Your task to perform on an android device: Open Google Chrome and click the shortcut for Amazon.com Image 0: 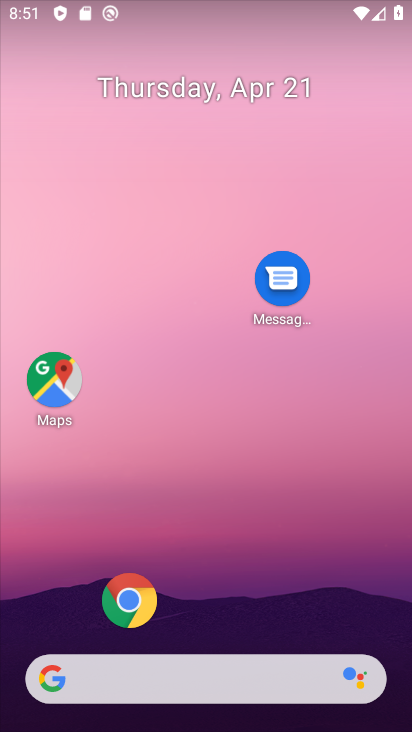
Step 0: click (128, 600)
Your task to perform on an android device: Open Google Chrome and click the shortcut for Amazon.com Image 1: 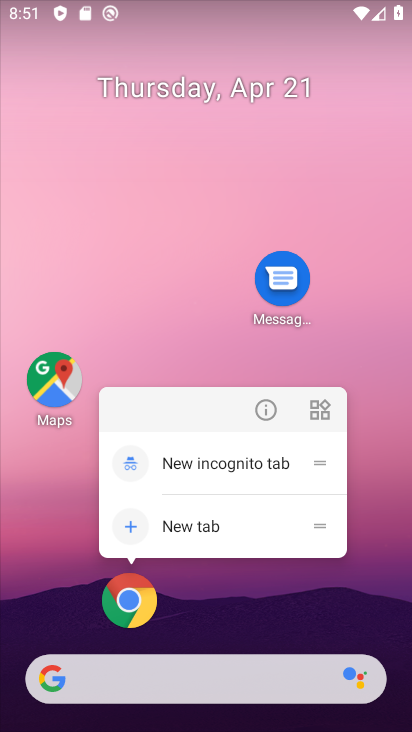
Step 1: click (267, 419)
Your task to perform on an android device: Open Google Chrome and click the shortcut for Amazon.com Image 2: 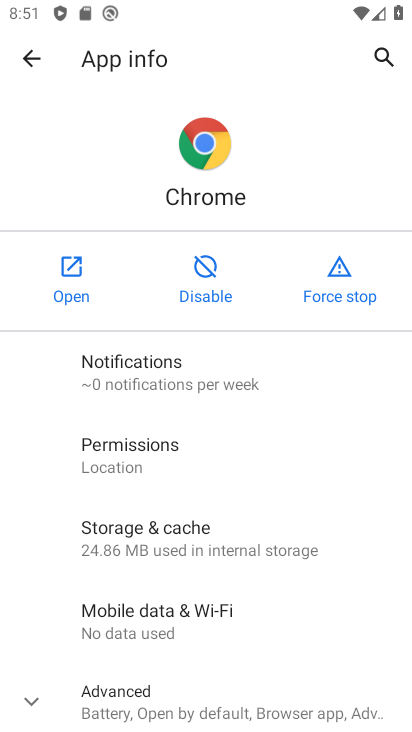
Step 2: click (68, 259)
Your task to perform on an android device: Open Google Chrome and click the shortcut for Amazon.com Image 3: 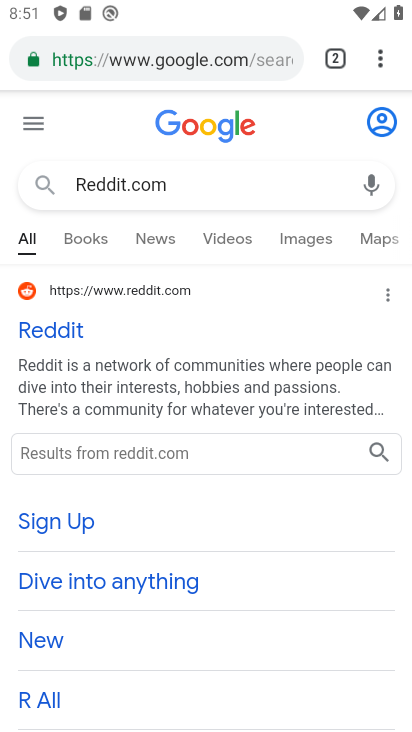
Step 3: click (332, 54)
Your task to perform on an android device: Open Google Chrome and click the shortcut for Amazon.com Image 4: 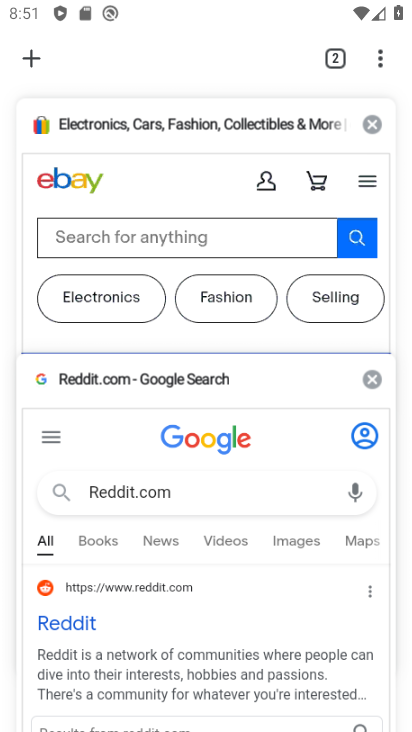
Step 4: click (376, 123)
Your task to perform on an android device: Open Google Chrome and click the shortcut for Amazon.com Image 5: 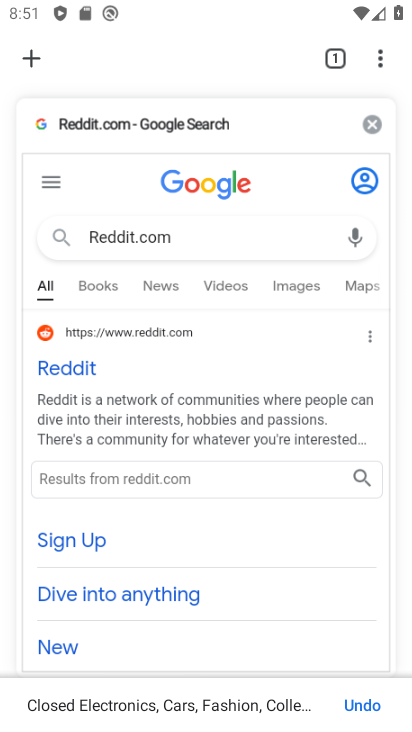
Step 5: click (369, 121)
Your task to perform on an android device: Open Google Chrome and click the shortcut for Amazon.com Image 6: 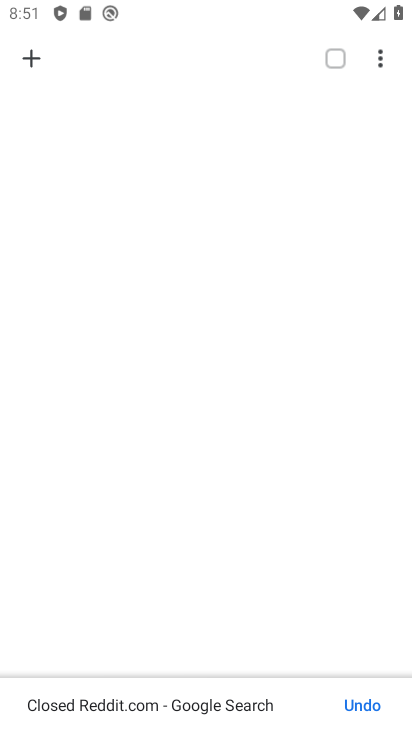
Step 6: click (31, 62)
Your task to perform on an android device: Open Google Chrome and click the shortcut for Amazon.com Image 7: 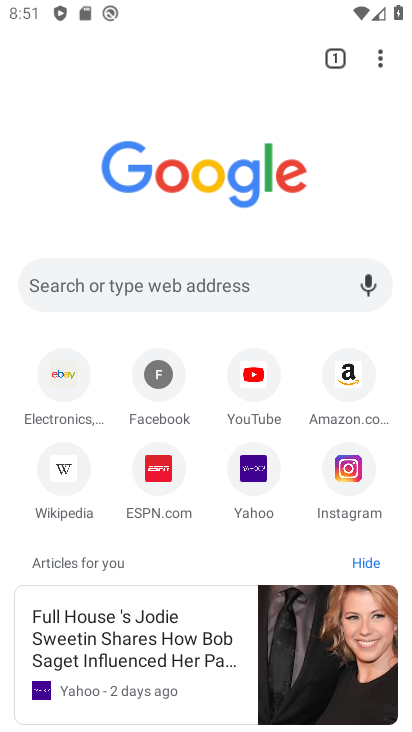
Step 7: click (329, 386)
Your task to perform on an android device: Open Google Chrome and click the shortcut for Amazon.com Image 8: 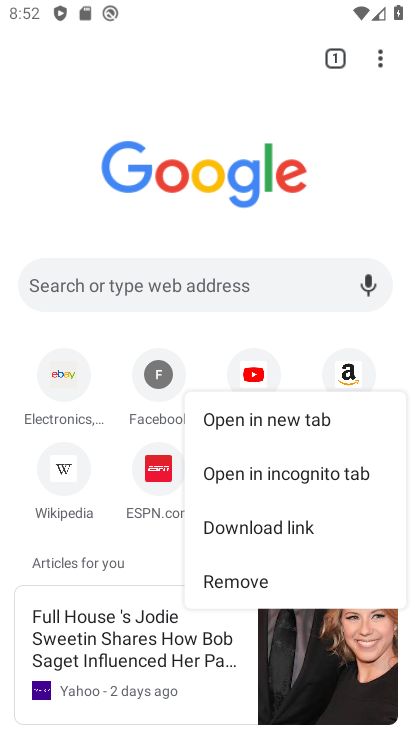
Step 8: click (334, 379)
Your task to perform on an android device: Open Google Chrome and click the shortcut for Amazon.com Image 9: 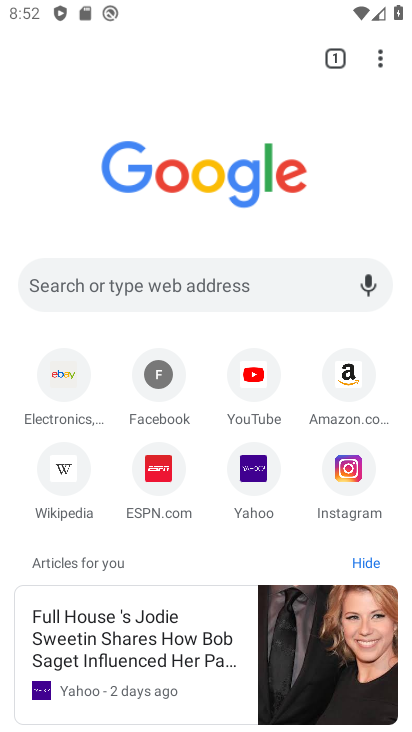
Step 9: click (345, 374)
Your task to perform on an android device: Open Google Chrome and click the shortcut for Amazon.com Image 10: 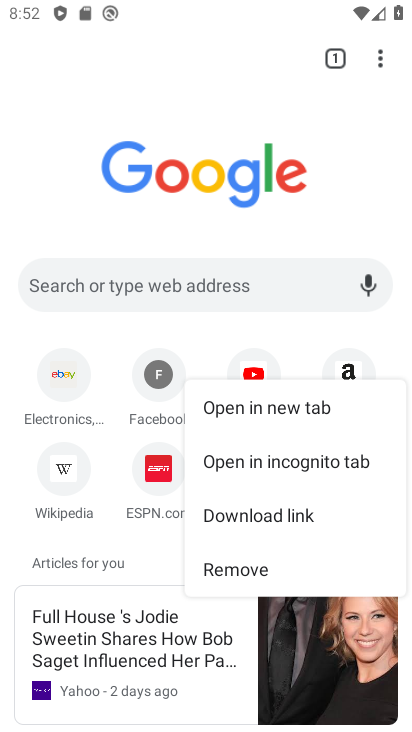
Step 10: click (358, 354)
Your task to perform on an android device: Open Google Chrome and click the shortcut for Amazon.com Image 11: 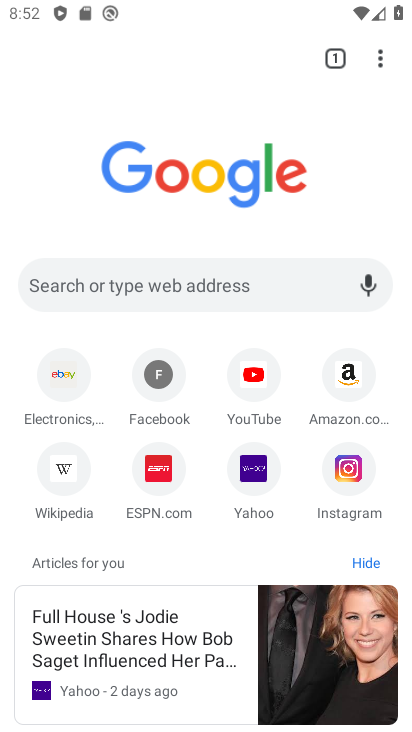
Step 11: click (353, 363)
Your task to perform on an android device: Open Google Chrome and click the shortcut for Amazon.com Image 12: 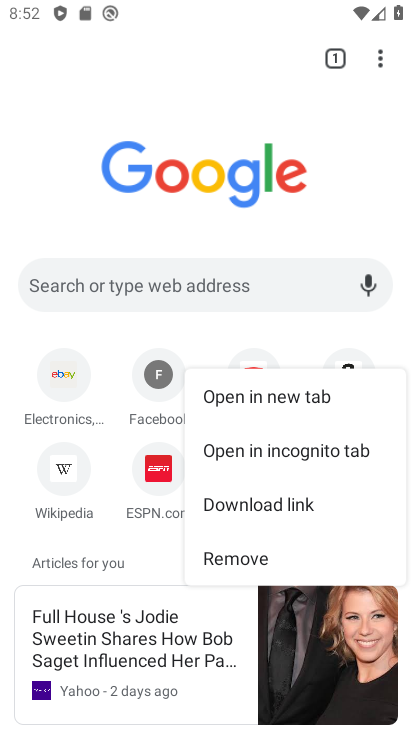
Step 12: click (343, 333)
Your task to perform on an android device: Open Google Chrome and click the shortcut for Amazon.com Image 13: 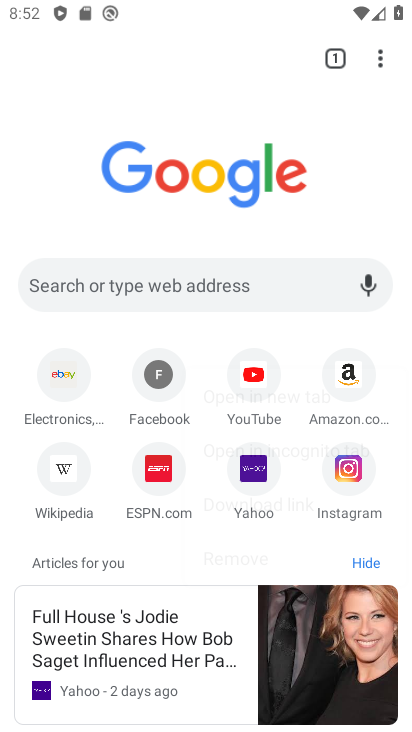
Step 13: click (343, 333)
Your task to perform on an android device: Open Google Chrome and click the shortcut for Amazon.com Image 14: 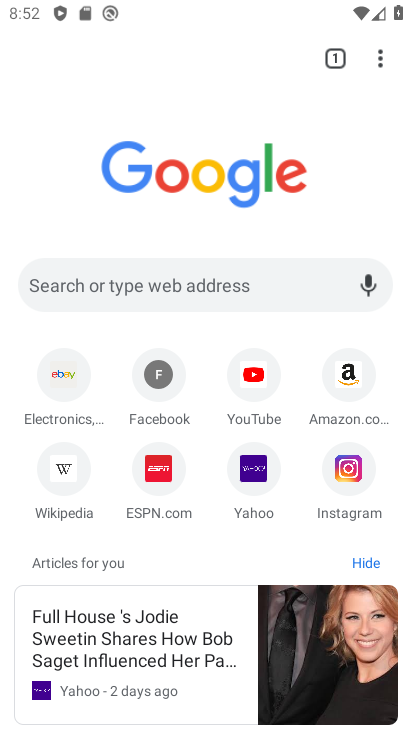
Step 14: click (336, 376)
Your task to perform on an android device: Open Google Chrome and click the shortcut for Amazon.com Image 15: 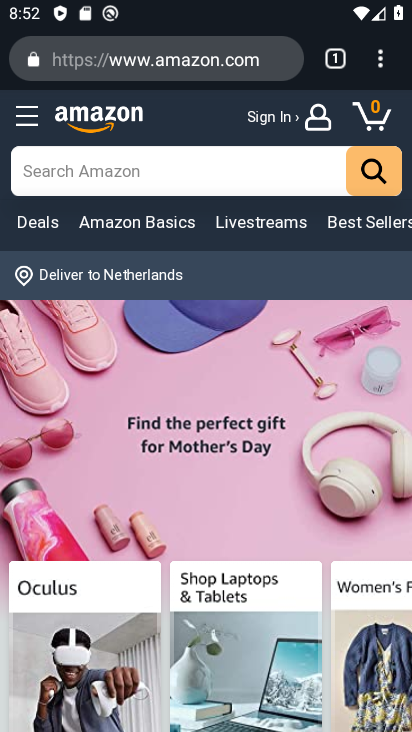
Step 15: task complete